Your task to perform on an android device: Open Amazon Image 0: 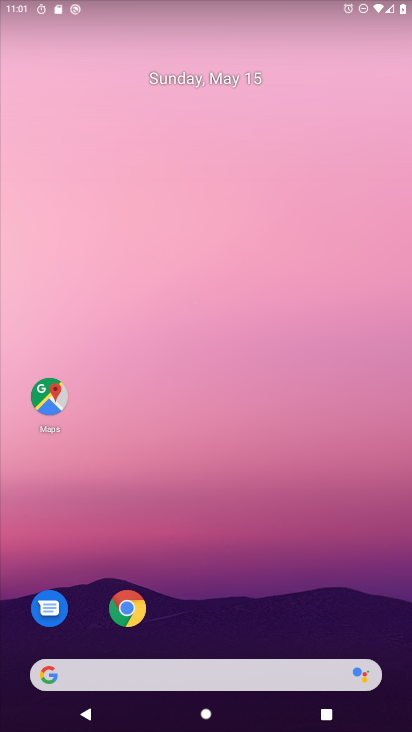
Step 0: drag from (301, 604) to (307, 223)
Your task to perform on an android device: Open Amazon Image 1: 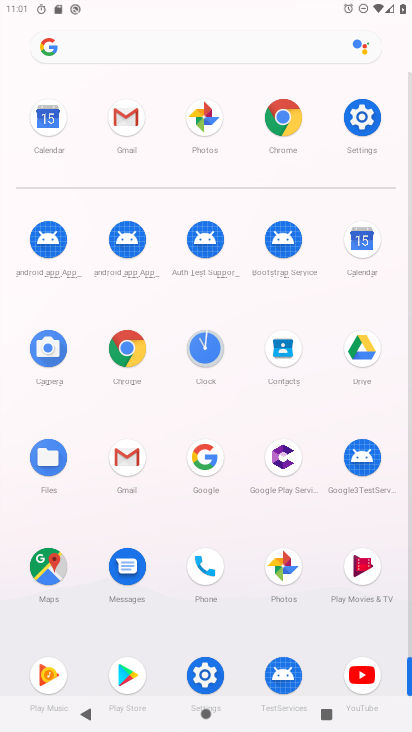
Step 1: drag from (293, 597) to (327, 291)
Your task to perform on an android device: Open Amazon Image 2: 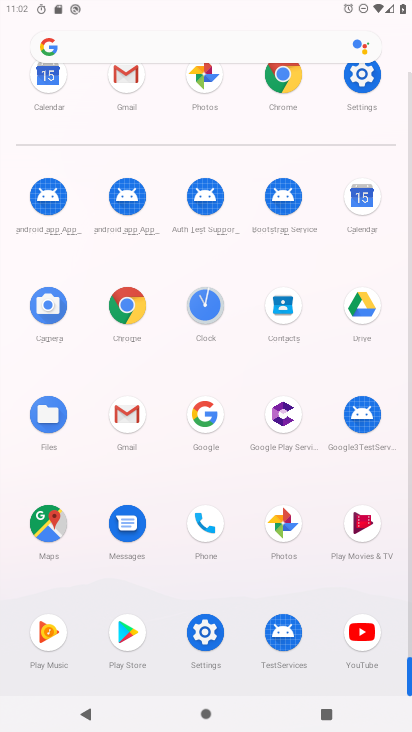
Step 2: drag from (326, 290) to (314, 591)
Your task to perform on an android device: Open Amazon Image 3: 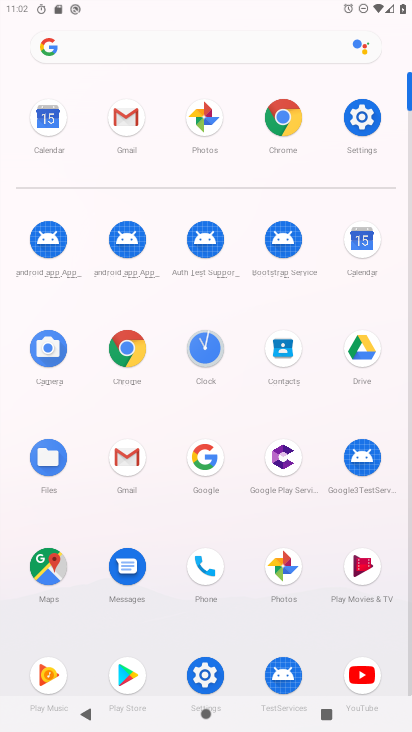
Step 3: click (124, 346)
Your task to perform on an android device: Open Amazon Image 4: 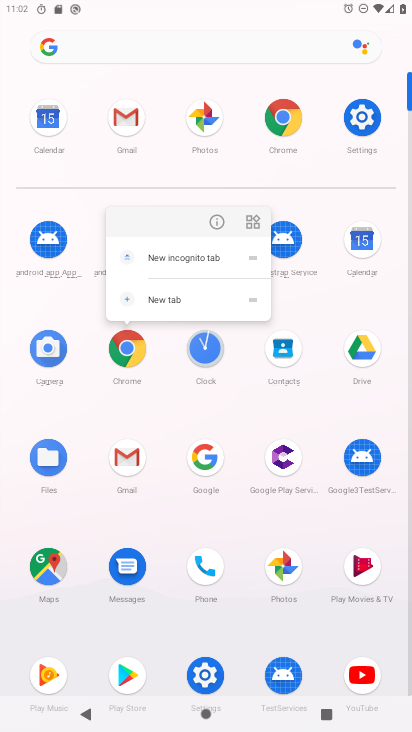
Step 4: click (124, 359)
Your task to perform on an android device: Open Amazon Image 5: 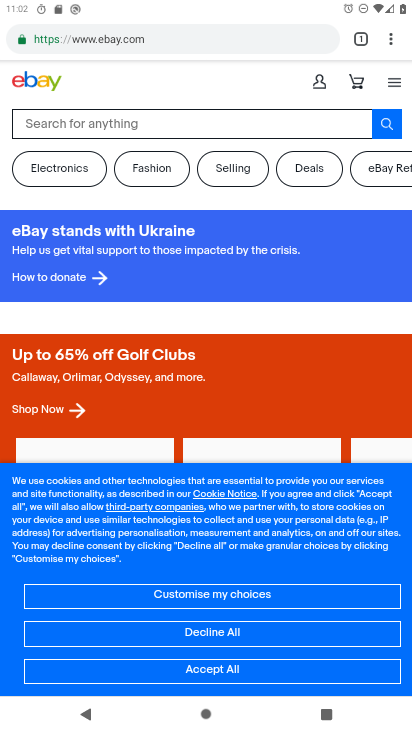
Step 5: click (360, 42)
Your task to perform on an android device: Open Amazon Image 6: 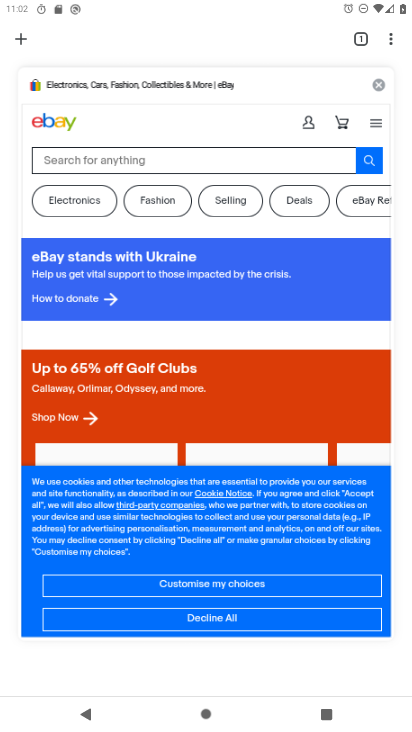
Step 6: click (16, 46)
Your task to perform on an android device: Open Amazon Image 7: 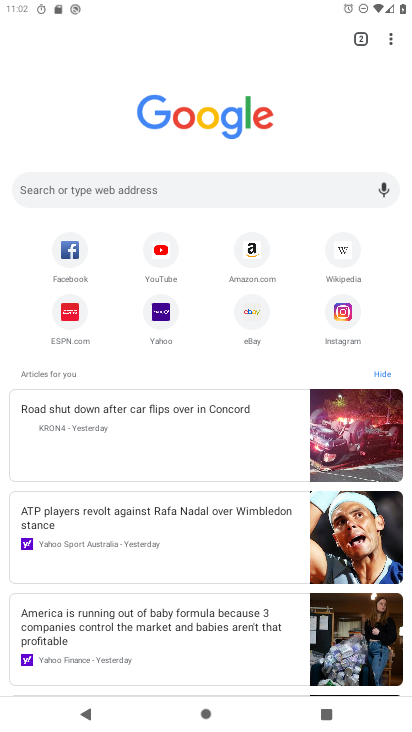
Step 7: click (252, 255)
Your task to perform on an android device: Open Amazon Image 8: 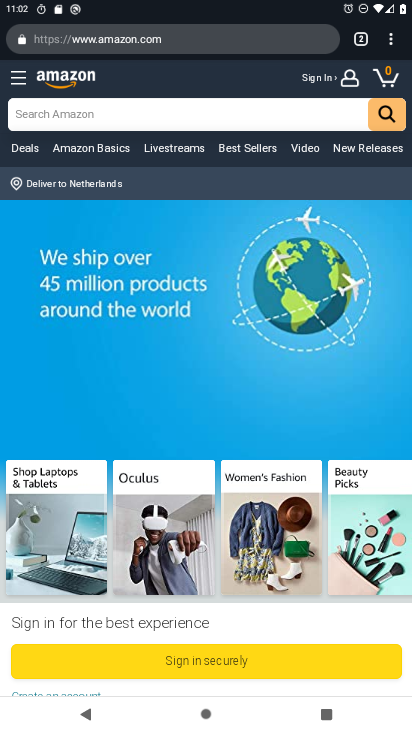
Step 8: task complete